Your task to perform on an android device: Open location settings Image 0: 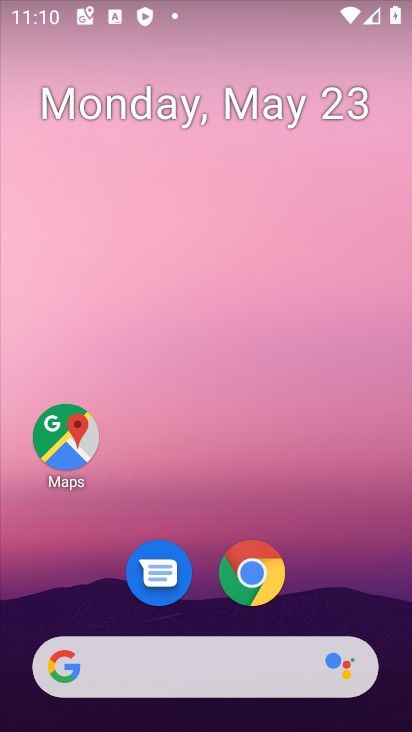
Step 0: drag from (241, 635) to (255, 140)
Your task to perform on an android device: Open location settings Image 1: 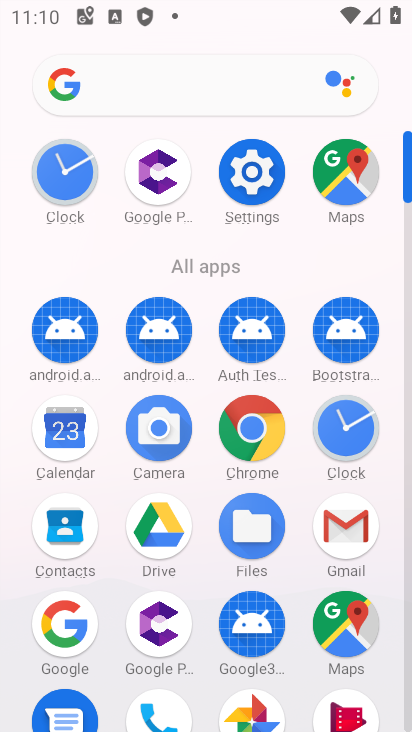
Step 1: click (254, 165)
Your task to perform on an android device: Open location settings Image 2: 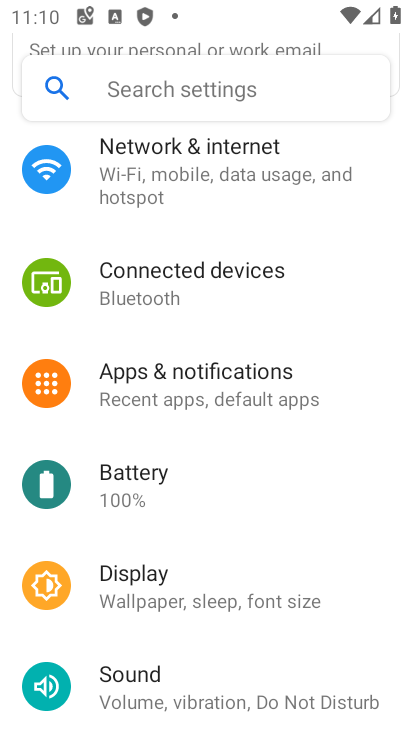
Step 2: drag from (194, 671) to (180, 173)
Your task to perform on an android device: Open location settings Image 3: 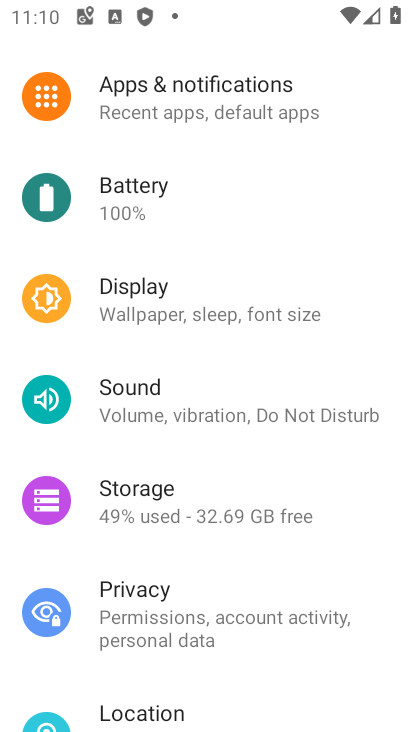
Step 3: click (164, 718)
Your task to perform on an android device: Open location settings Image 4: 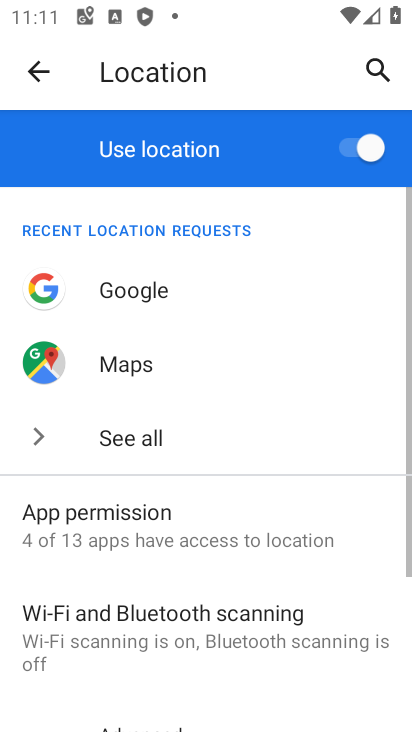
Step 4: drag from (176, 673) to (185, 377)
Your task to perform on an android device: Open location settings Image 5: 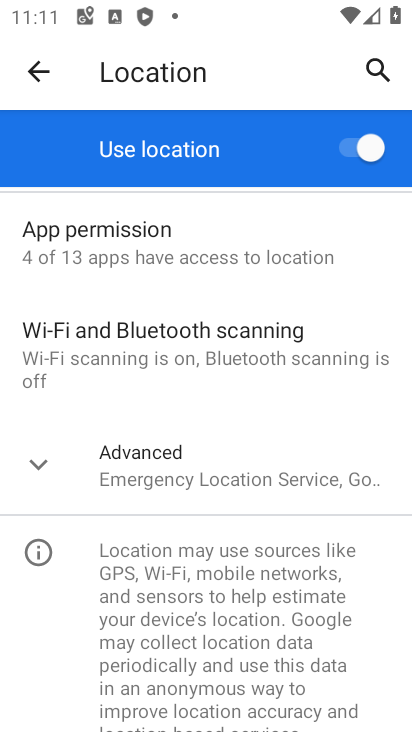
Step 5: click (169, 481)
Your task to perform on an android device: Open location settings Image 6: 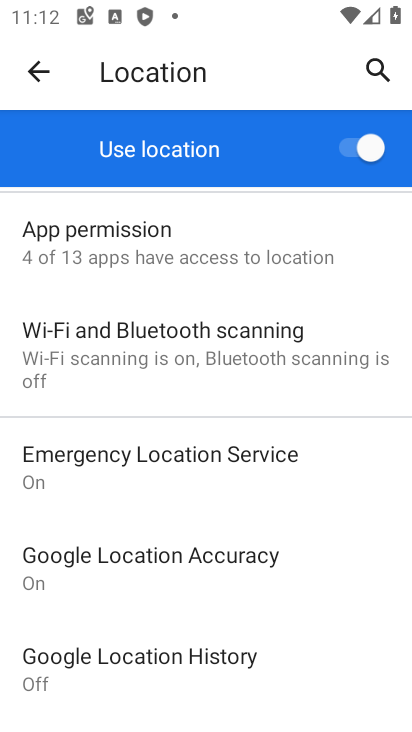
Step 6: task complete